Your task to perform on an android device: Open the map Image 0: 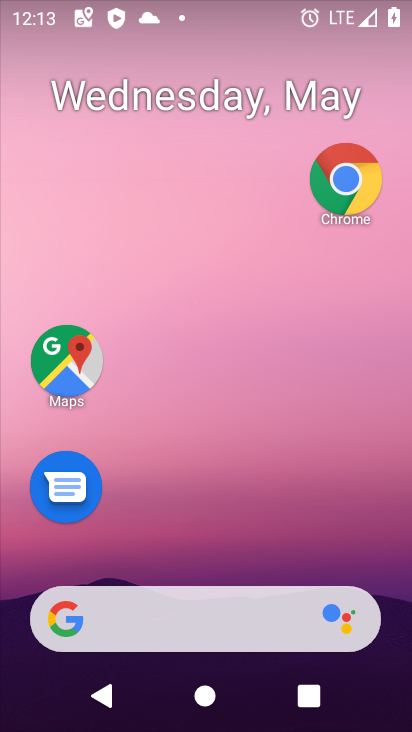
Step 0: drag from (191, 520) to (257, 145)
Your task to perform on an android device: Open the map Image 1: 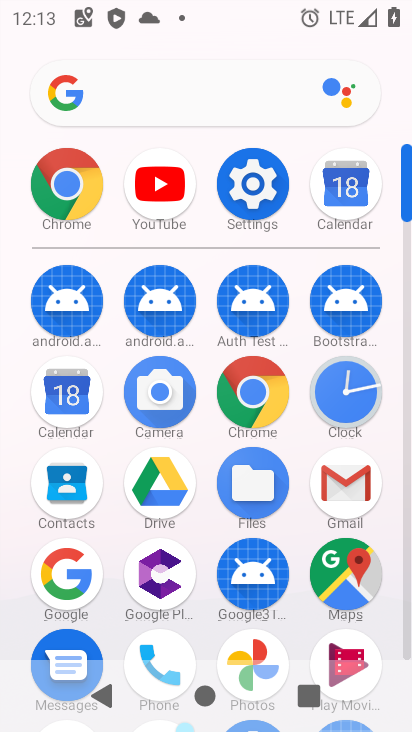
Step 1: click (341, 573)
Your task to perform on an android device: Open the map Image 2: 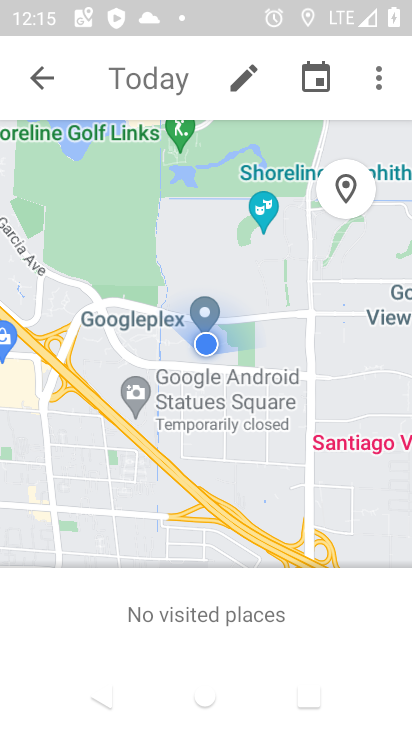
Step 2: task complete